Your task to perform on an android device: Go to eBay Image 0: 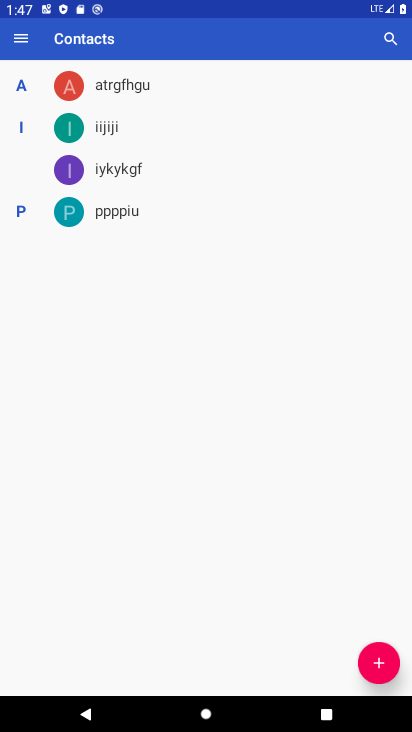
Step 0: press home button
Your task to perform on an android device: Go to eBay Image 1: 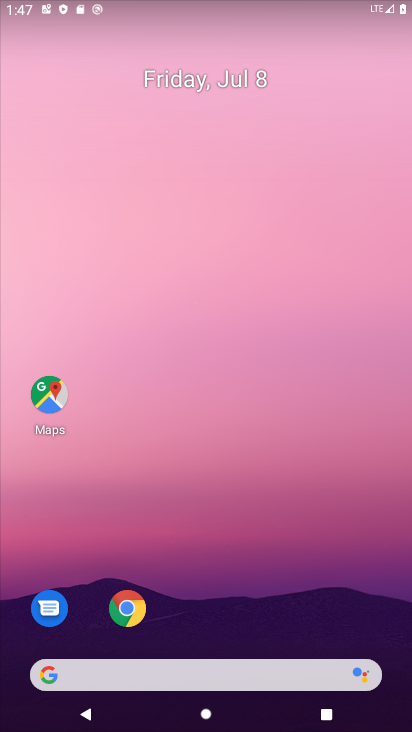
Step 1: click (127, 611)
Your task to perform on an android device: Go to eBay Image 2: 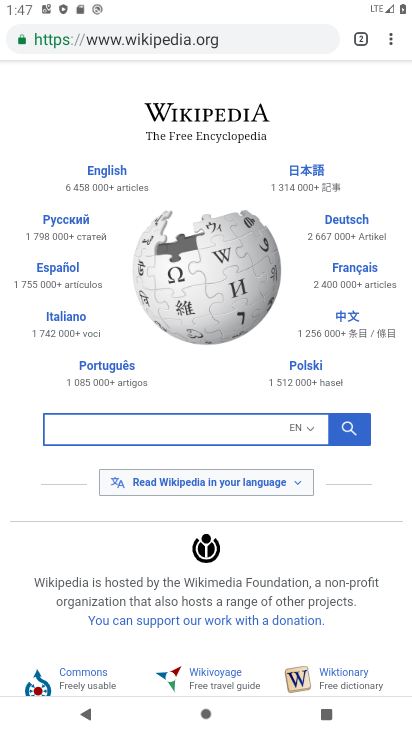
Step 2: click (249, 34)
Your task to perform on an android device: Go to eBay Image 3: 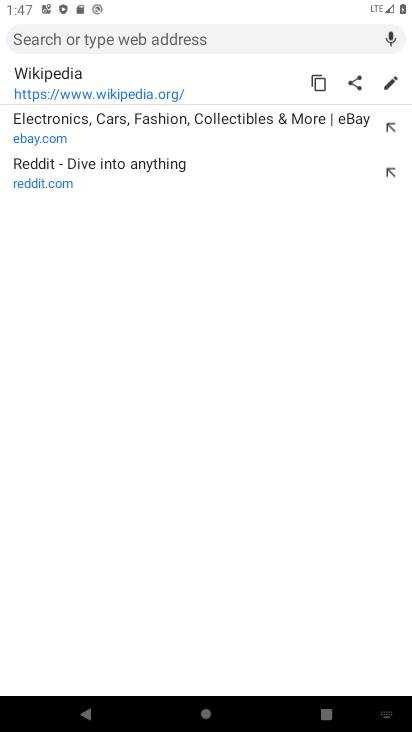
Step 3: type "eBay"
Your task to perform on an android device: Go to eBay Image 4: 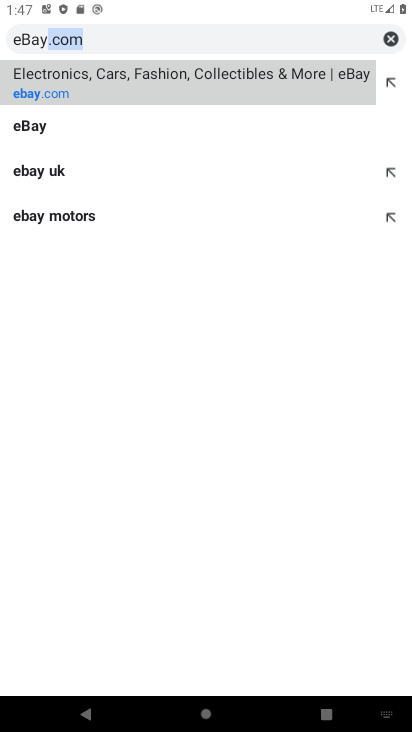
Step 4: click (57, 80)
Your task to perform on an android device: Go to eBay Image 5: 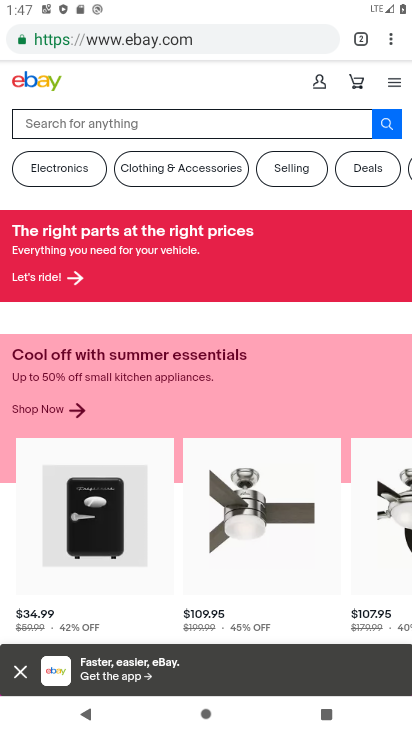
Step 5: task complete